Your task to perform on an android device: toggle improve location accuracy Image 0: 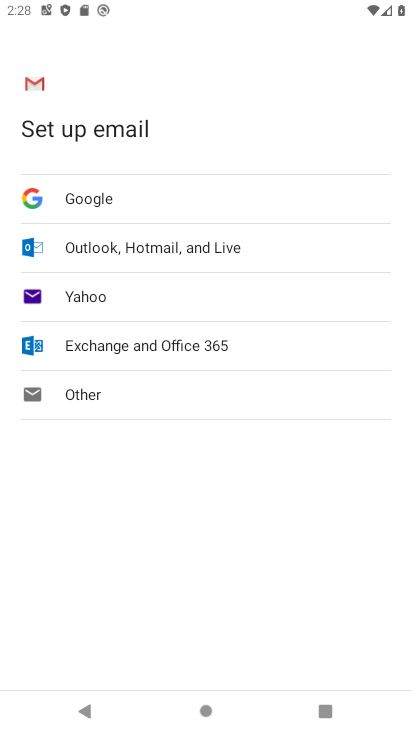
Step 0: press home button
Your task to perform on an android device: toggle improve location accuracy Image 1: 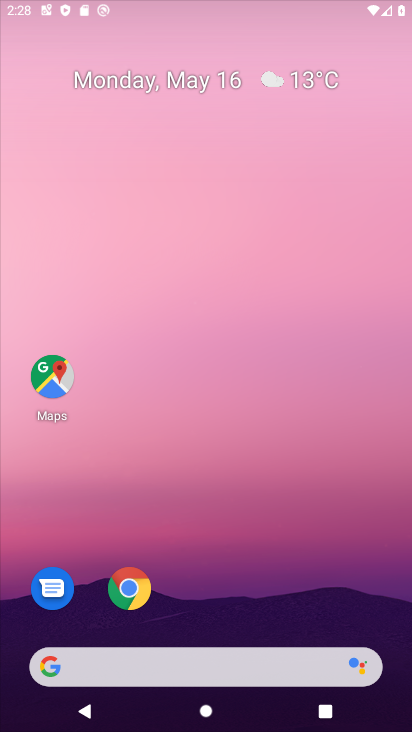
Step 1: drag from (235, 684) to (221, 23)
Your task to perform on an android device: toggle improve location accuracy Image 2: 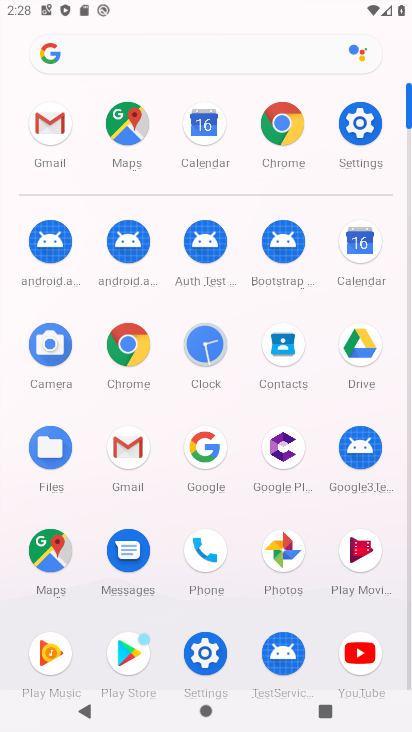
Step 2: click (368, 127)
Your task to perform on an android device: toggle improve location accuracy Image 3: 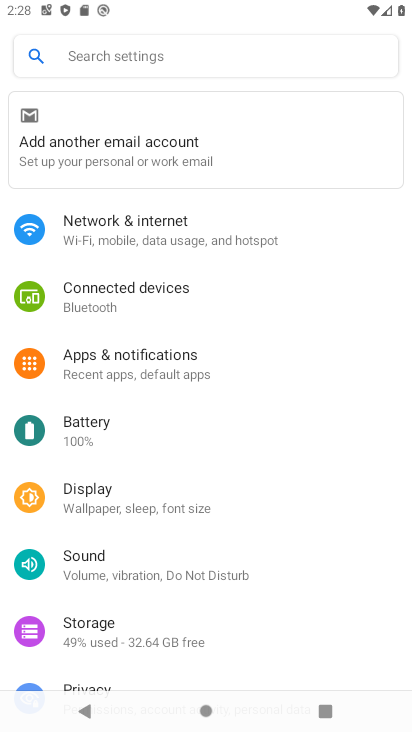
Step 3: drag from (166, 641) to (136, 170)
Your task to perform on an android device: toggle improve location accuracy Image 4: 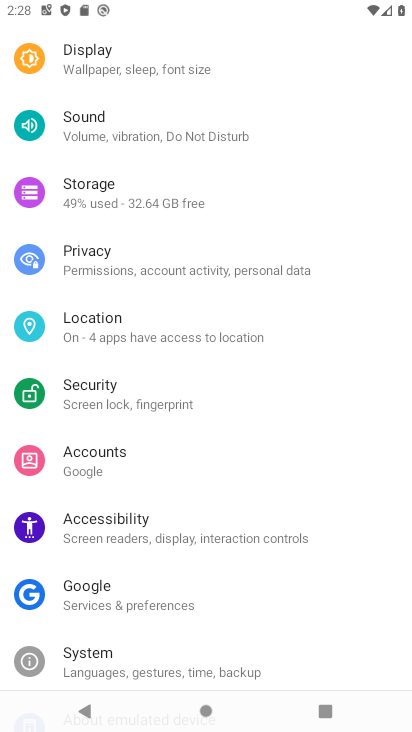
Step 4: click (145, 327)
Your task to perform on an android device: toggle improve location accuracy Image 5: 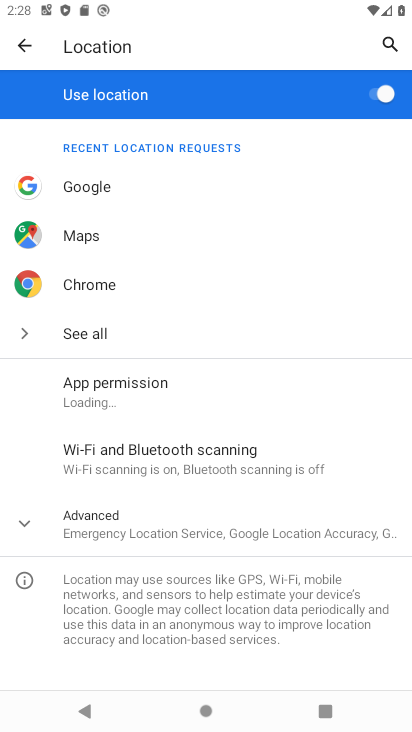
Step 5: click (234, 526)
Your task to perform on an android device: toggle improve location accuracy Image 6: 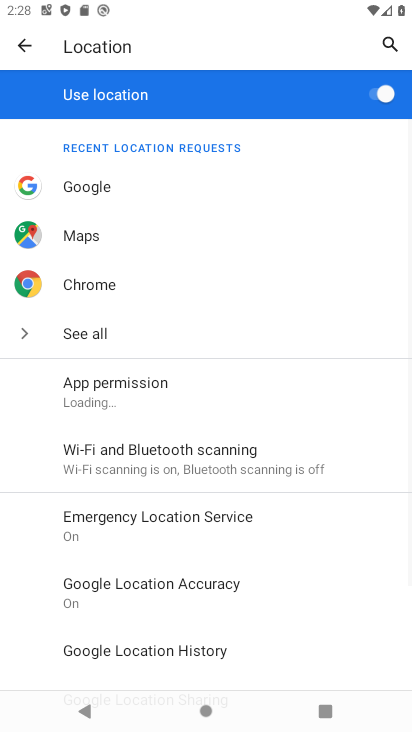
Step 6: drag from (223, 651) to (220, 217)
Your task to perform on an android device: toggle improve location accuracy Image 7: 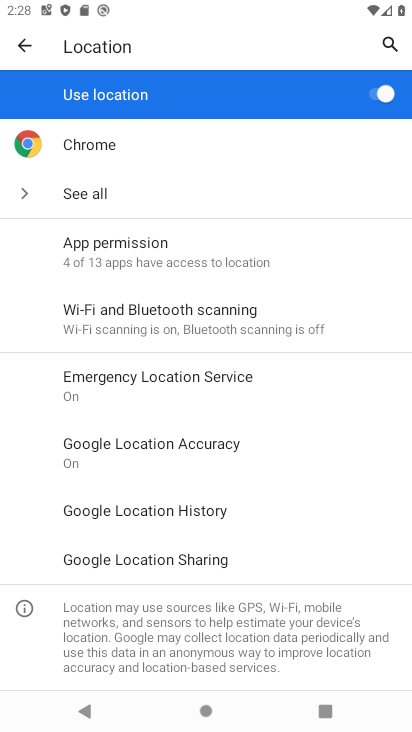
Step 7: click (198, 508)
Your task to perform on an android device: toggle improve location accuracy Image 8: 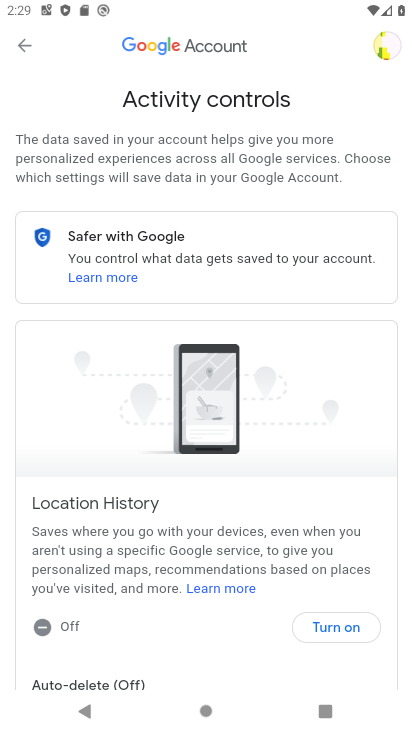
Step 8: press back button
Your task to perform on an android device: toggle improve location accuracy Image 9: 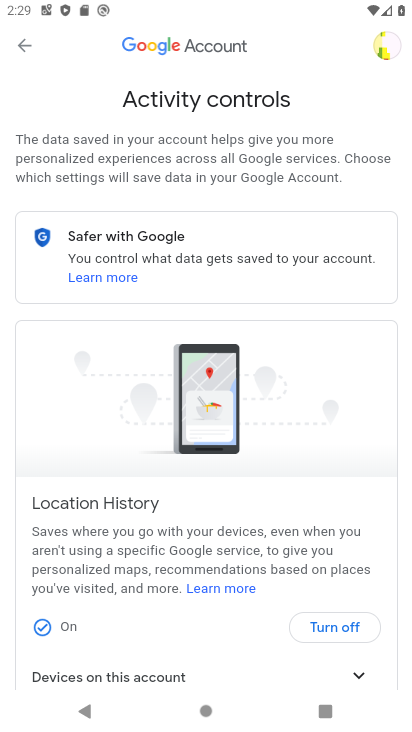
Step 9: press back button
Your task to perform on an android device: toggle improve location accuracy Image 10: 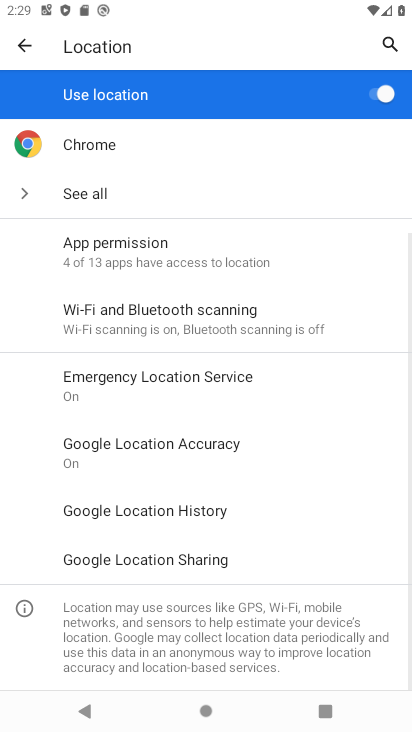
Step 10: click (174, 443)
Your task to perform on an android device: toggle improve location accuracy Image 11: 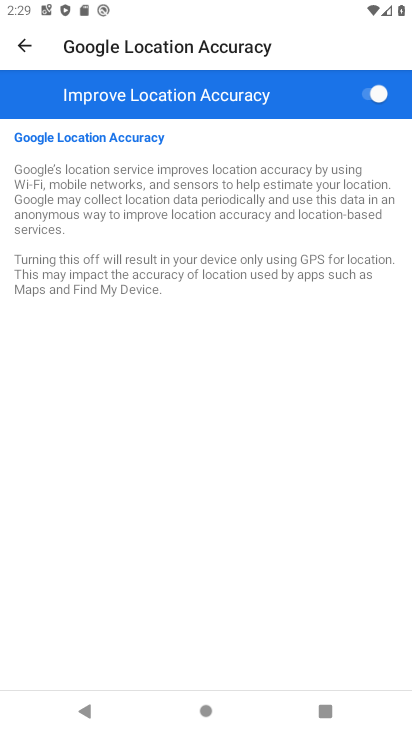
Step 11: click (371, 97)
Your task to perform on an android device: toggle improve location accuracy Image 12: 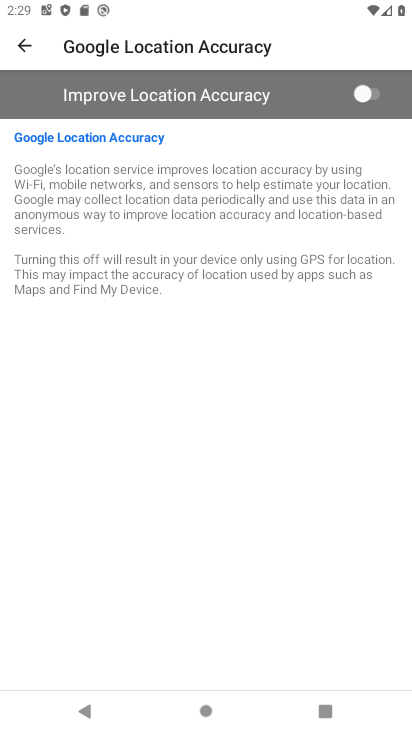
Step 12: task complete